Your task to perform on an android device: star an email in the gmail app Image 0: 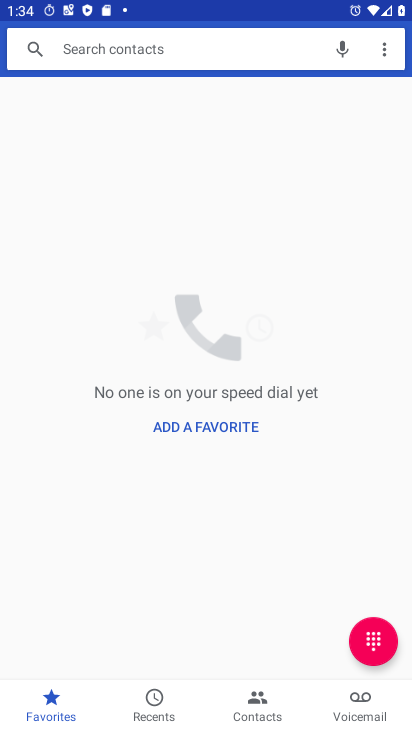
Step 0: press home button
Your task to perform on an android device: star an email in the gmail app Image 1: 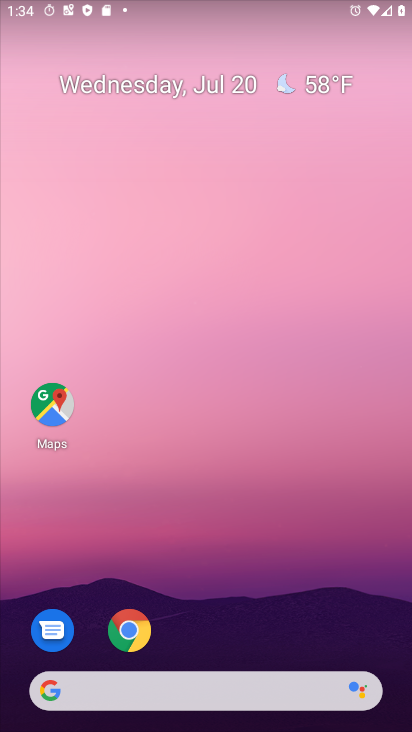
Step 1: drag from (165, 688) to (168, 75)
Your task to perform on an android device: star an email in the gmail app Image 2: 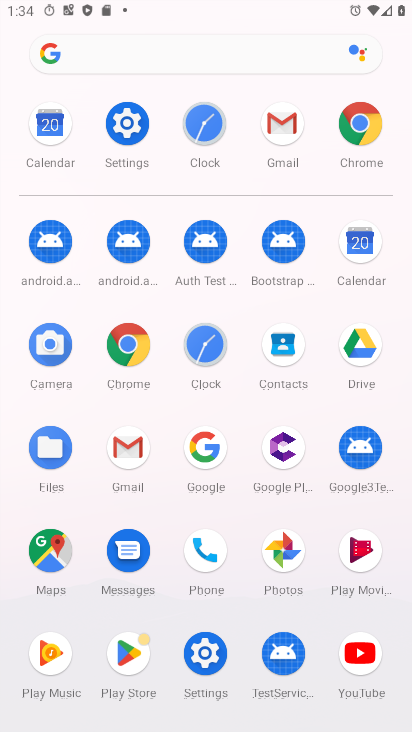
Step 2: click (277, 132)
Your task to perform on an android device: star an email in the gmail app Image 3: 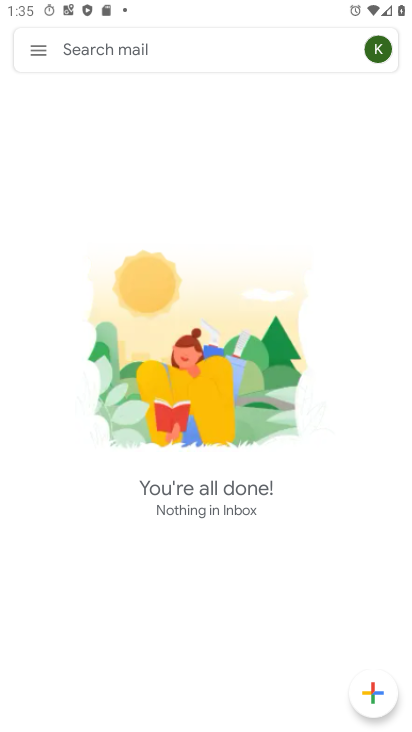
Step 3: task complete